Your task to perform on an android device: toggle javascript in the chrome app Image 0: 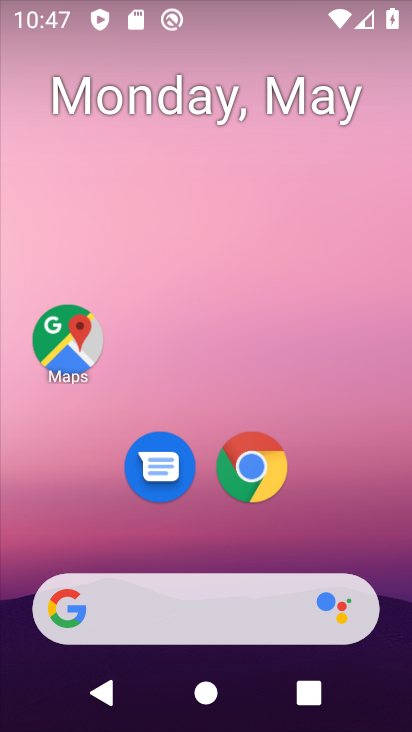
Step 0: click (58, 341)
Your task to perform on an android device: toggle javascript in the chrome app Image 1: 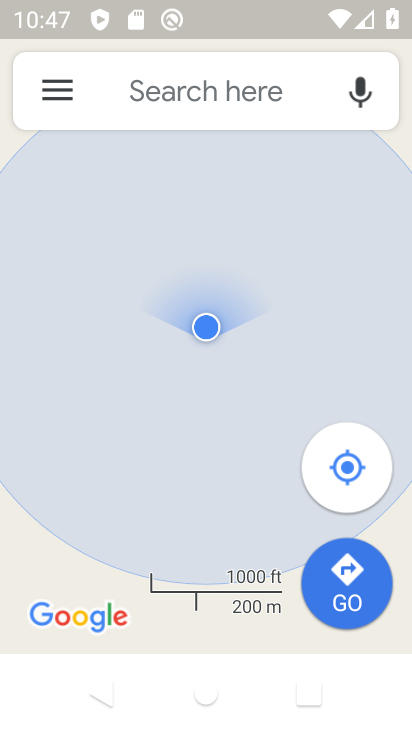
Step 1: task complete